Your task to perform on an android device: stop showing notifications on the lock screen Image 0: 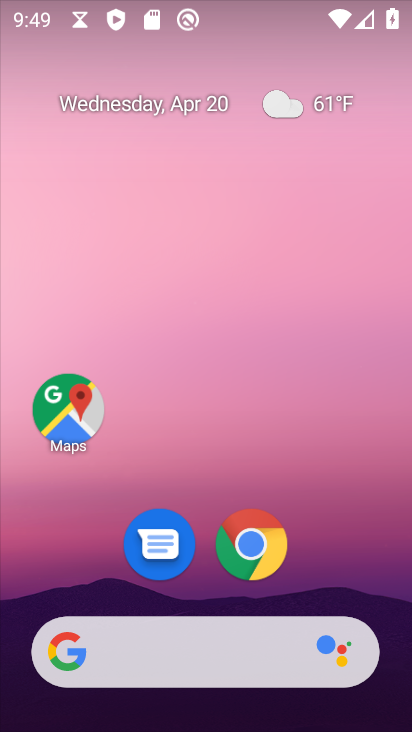
Step 0: drag from (152, 652) to (253, 2)
Your task to perform on an android device: stop showing notifications on the lock screen Image 1: 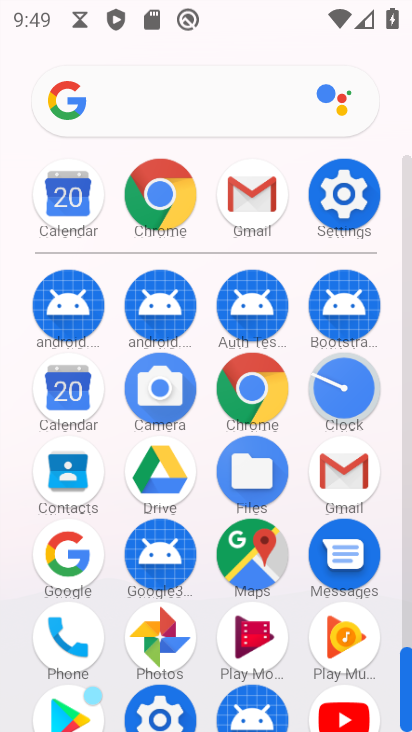
Step 1: click (347, 191)
Your task to perform on an android device: stop showing notifications on the lock screen Image 2: 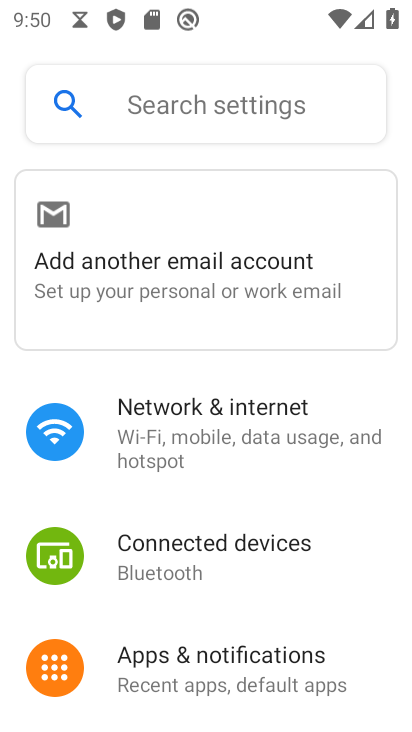
Step 2: click (218, 657)
Your task to perform on an android device: stop showing notifications on the lock screen Image 3: 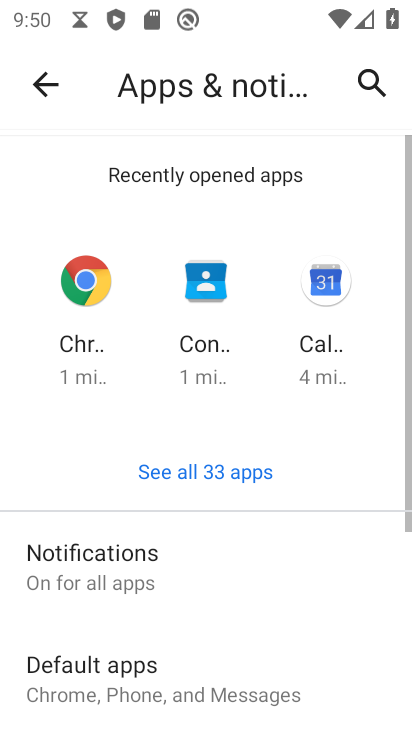
Step 3: click (103, 550)
Your task to perform on an android device: stop showing notifications on the lock screen Image 4: 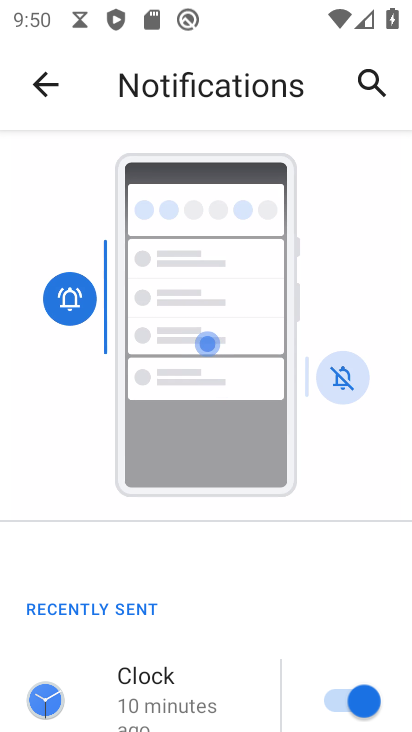
Step 4: drag from (185, 637) to (333, 124)
Your task to perform on an android device: stop showing notifications on the lock screen Image 5: 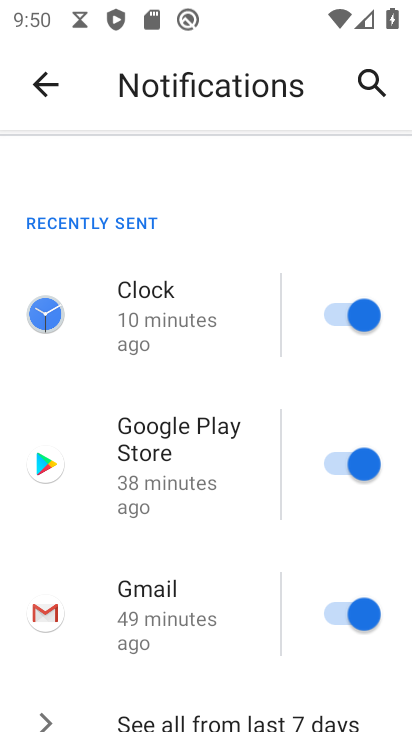
Step 5: drag from (194, 516) to (300, 161)
Your task to perform on an android device: stop showing notifications on the lock screen Image 6: 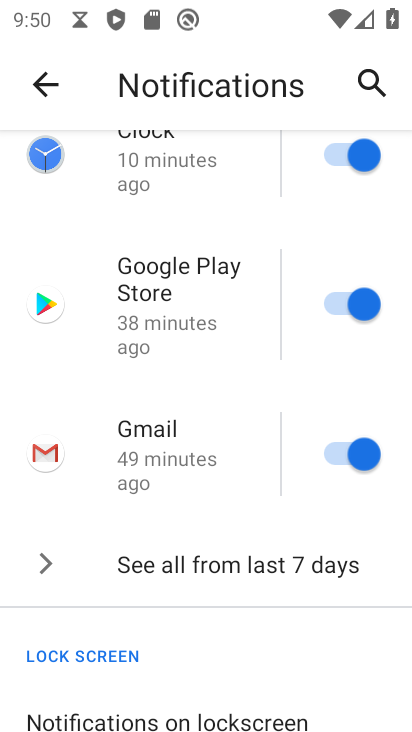
Step 6: drag from (166, 657) to (331, 229)
Your task to perform on an android device: stop showing notifications on the lock screen Image 7: 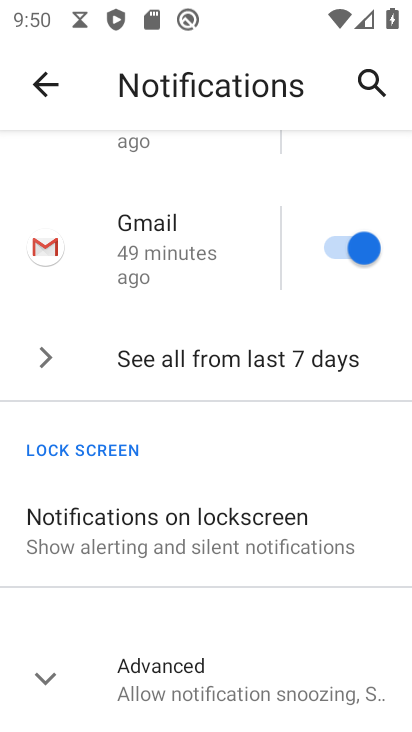
Step 7: click (165, 533)
Your task to perform on an android device: stop showing notifications on the lock screen Image 8: 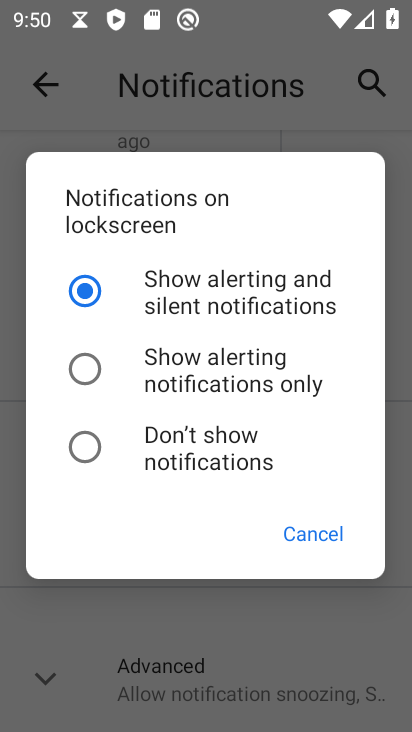
Step 8: click (80, 452)
Your task to perform on an android device: stop showing notifications on the lock screen Image 9: 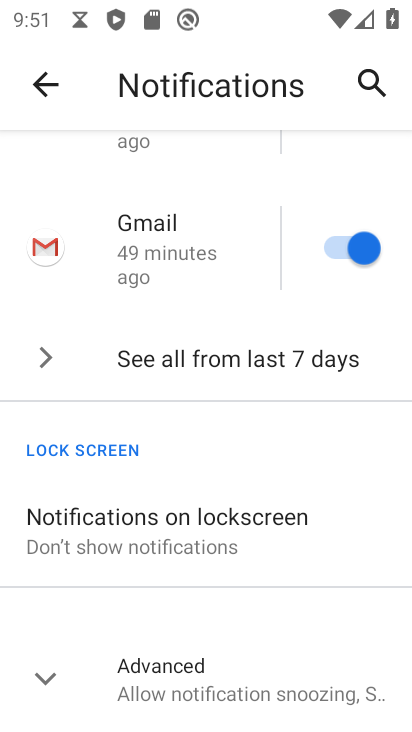
Step 9: task complete